Your task to perform on an android device: What's on my calendar today? Image 0: 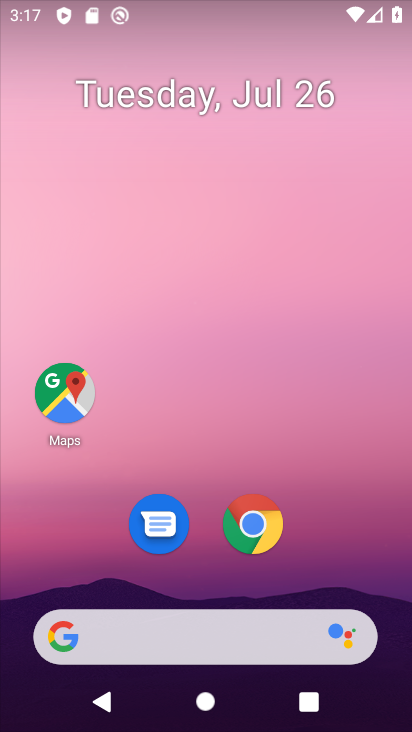
Step 0: click (406, 56)
Your task to perform on an android device: What's on my calendar today? Image 1: 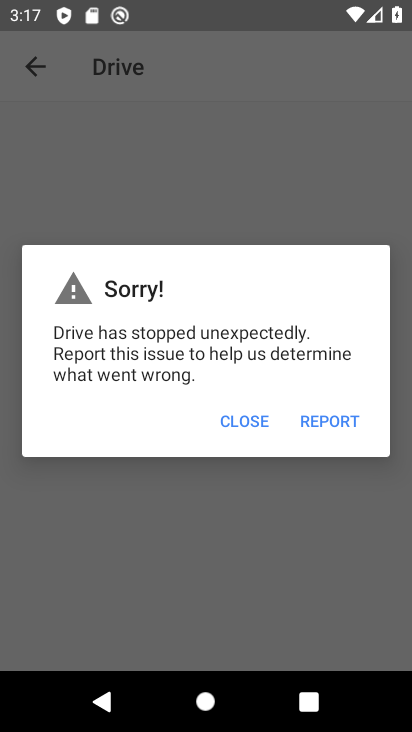
Step 1: press home button
Your task to perform on an android device: What's on my calendar today? Image 2: 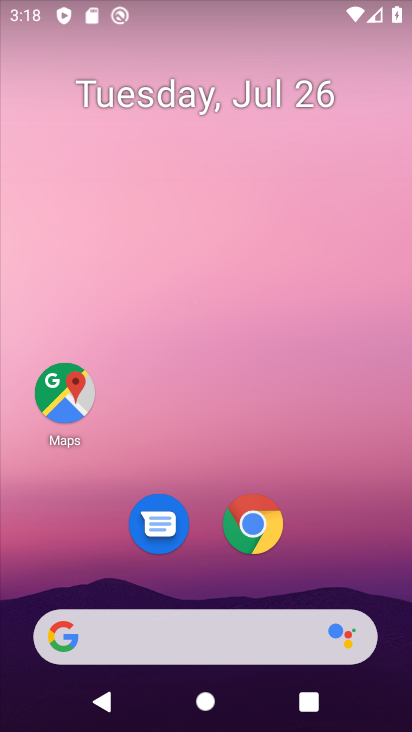
Step 2: drag from (335, 556) to (309, 220)
Your task to perform on an android device: What's on my calendar today? Image 3: 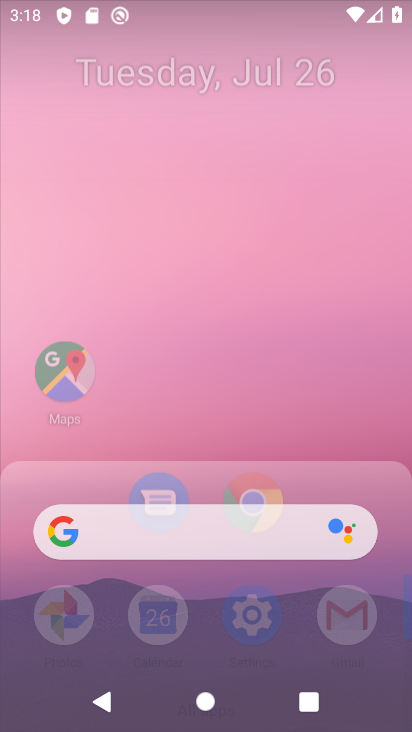
Step 3: drag from (304, 137) to (300, 64)
Your task to perform on an android device: What's on my calendar today? Image 4: 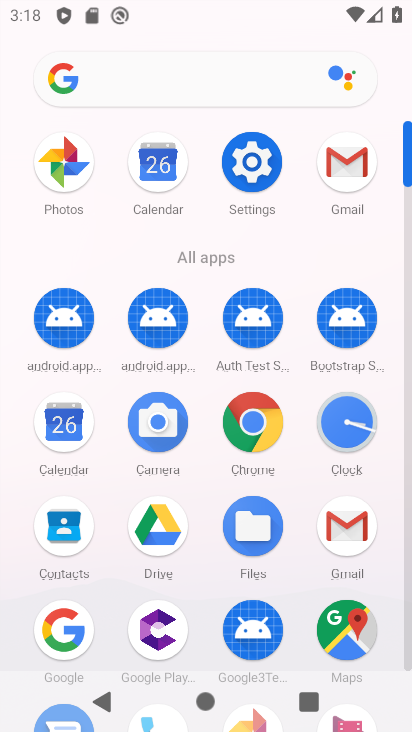
Step 4: click (157, 156)
Your task to perform on an android device: What's on my calendar today? Image 5: 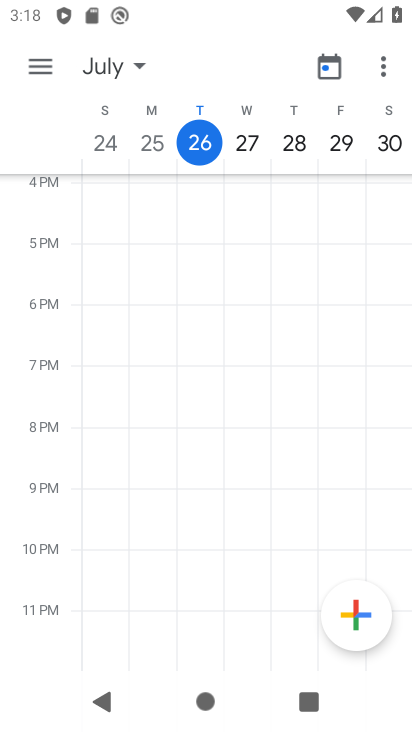
Step 5: task complete